Your task to perform on an android device: turn off location Image 0: 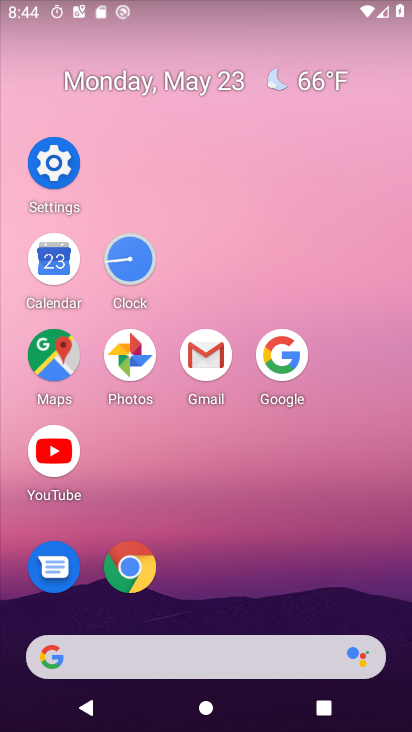
Step 0: click (36, 162)
Your task to perform on an android device: turn off location Image 1: 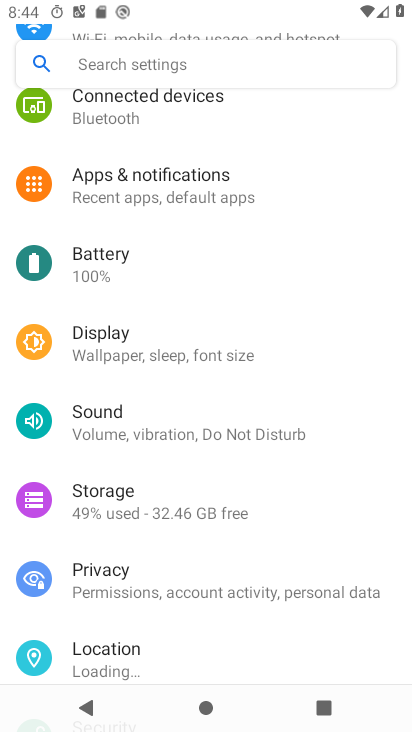
Step 1: drag from (158, 589) to (204, 248)
Your task to perform on an android device: turn off location Image 2: 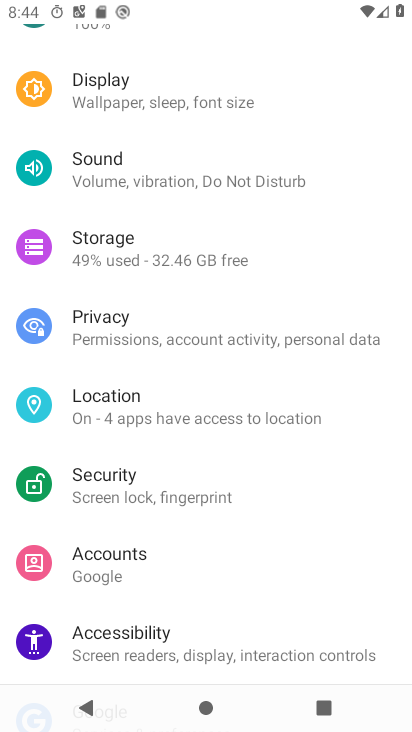
Step 2: click (185, 414)
Your task to perform on an android device: turn off location Image 3: 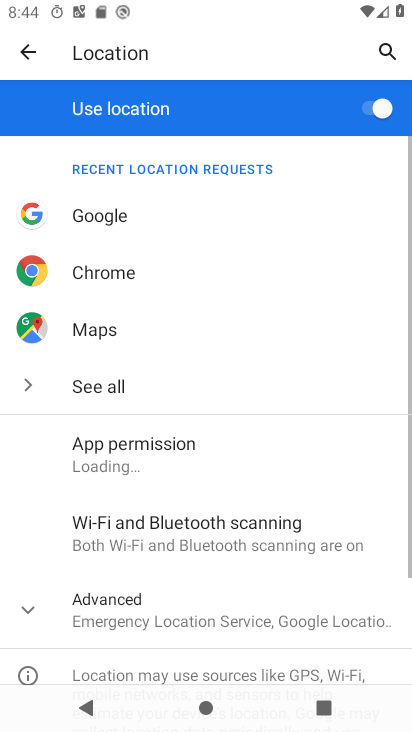
Step 3: click (369, 99)
Your task to perform on an android device: turn off location Image 4: 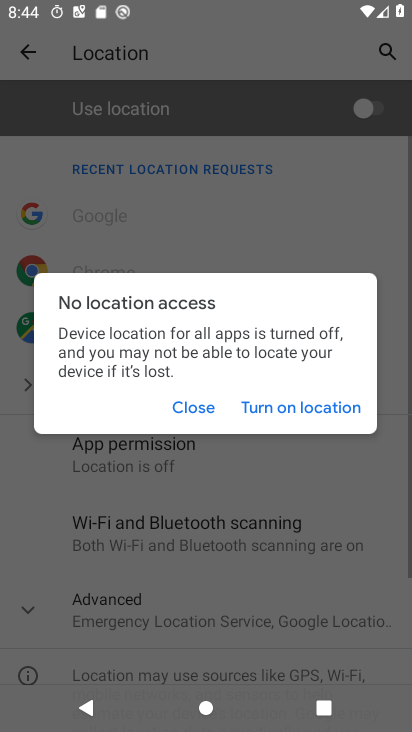
Step 4: task complete